Your task to perform on an android device: What is the news today? Image 0: 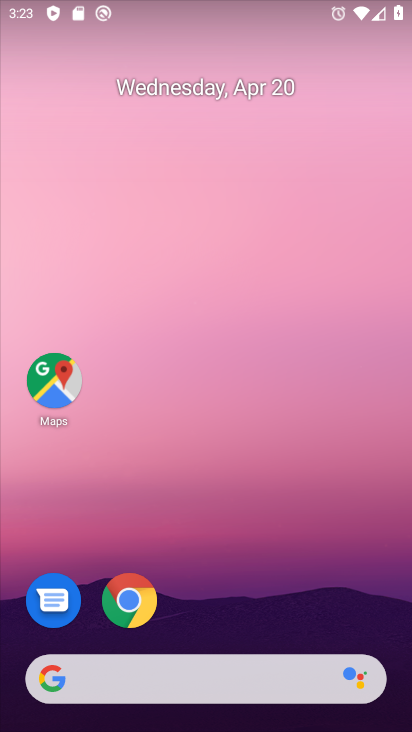
Step 0: drag from (289, 467) to (316, 208)
Your task to perform on an android device: What is the news today? Image 1: 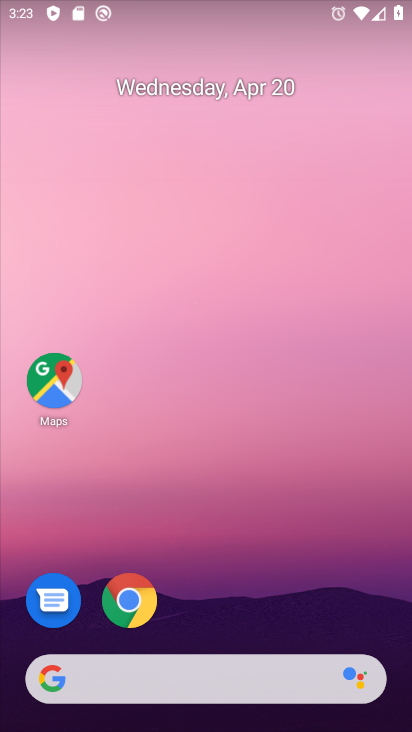
Step 1: drag from (188, 669) to (189, 213)
Your task to perform on an android device: What is the news today? Image 2: 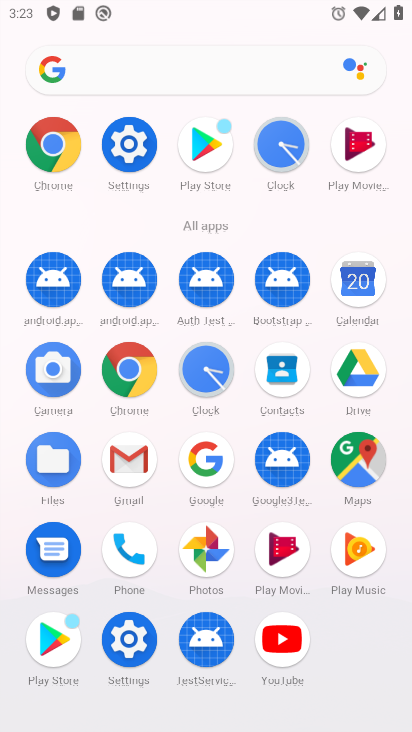
Step 2: click (45, 138)
Your task to perform on an android device: What is the news today? Image 3: 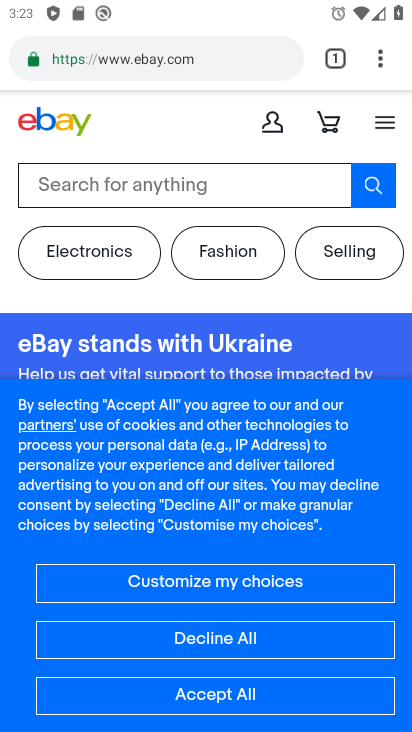
Step 3: click (376, 48)
Your task to perform on an android device: What is the news today? Image 4: 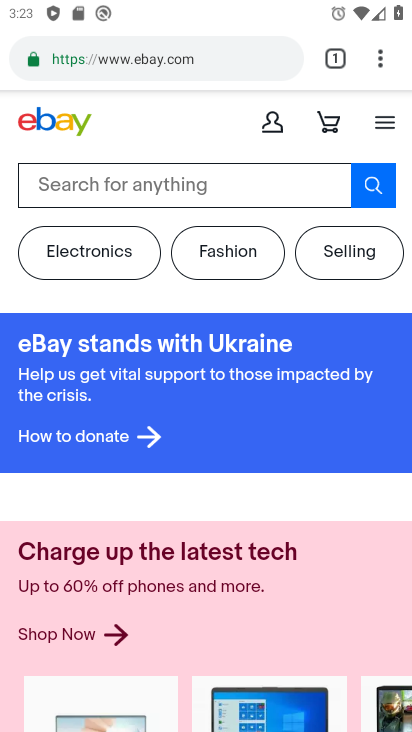
Step 4: click (373, 60)
Your task to perform on an android device: What is the news today? Image 5: 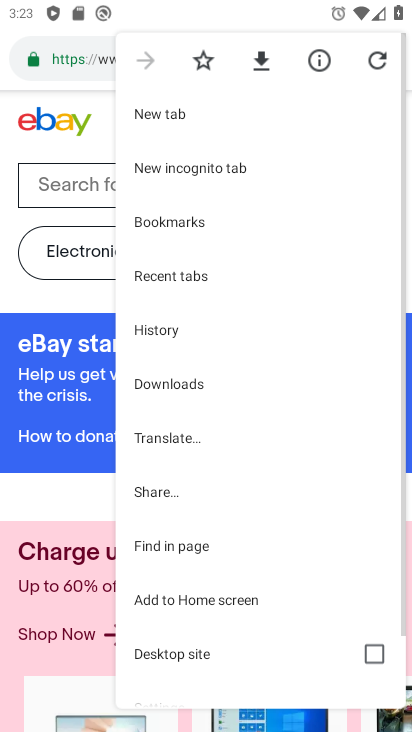
Step 5: click (220, 112)
Your task to perform on an android device: What is the news today? Image 6: 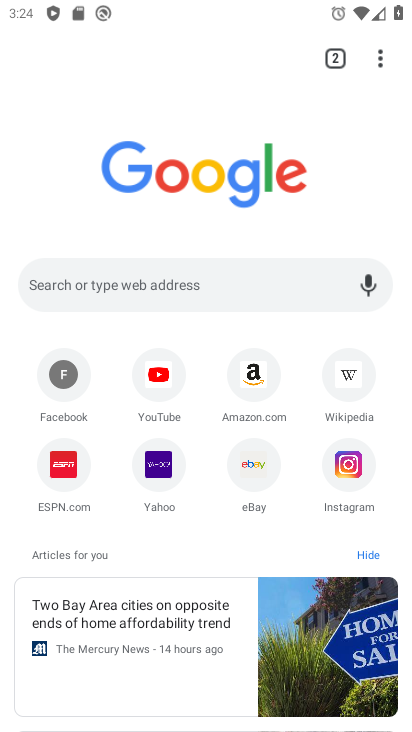
Step 6: click (196, 283)
Your task to perform on an android device: What is the news today? Image 7: 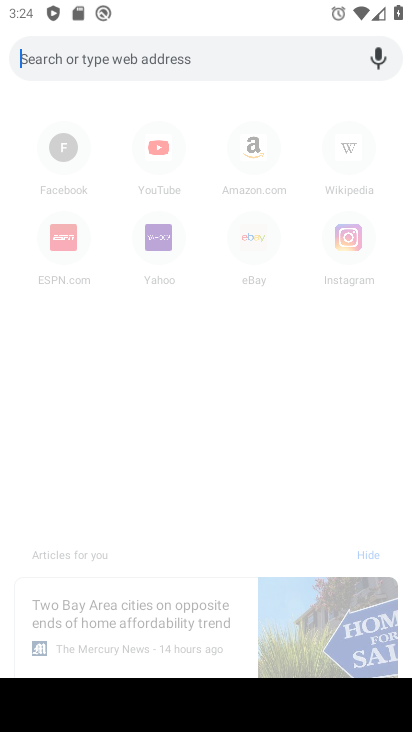
Step 7: type "What is the news today?"
Your task to perform on an android device: What is the news today? Image 8: 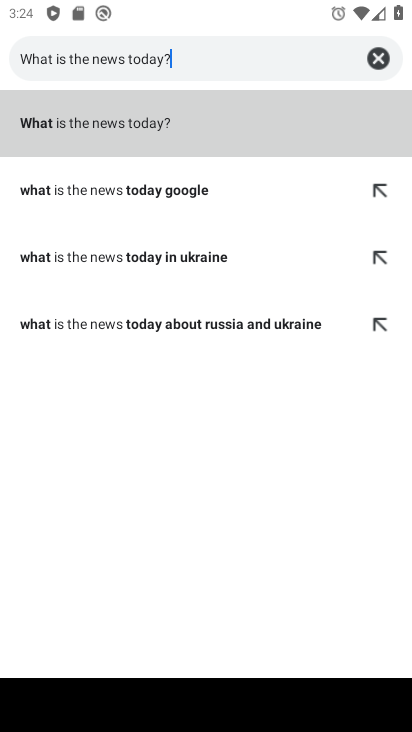
Step 8: click (130, 183)
Your task to perform on an android device: What is the news today? Image 9: 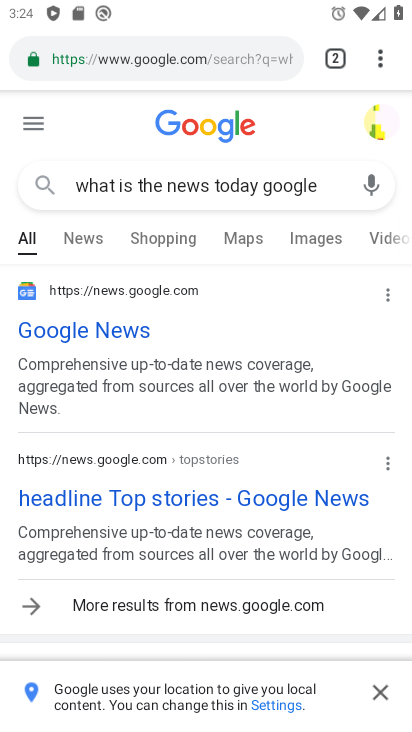
Step 9: click (322, 184)
Your task to perform on an android device: What is the news today? Image 10: 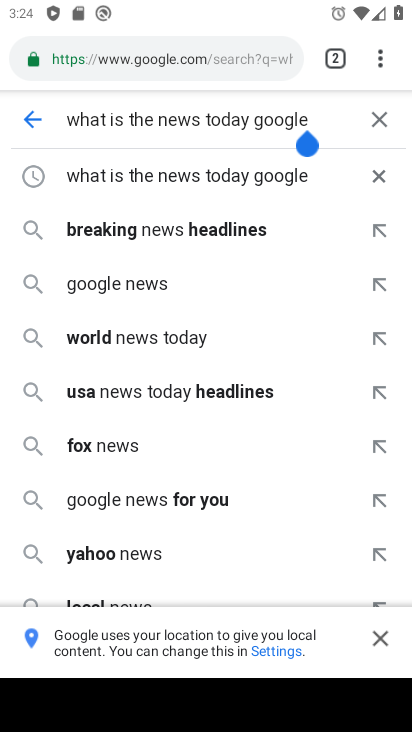
Step 10: click (378, 134)
Your task to perform on an android device: What is the news today? Image 11: 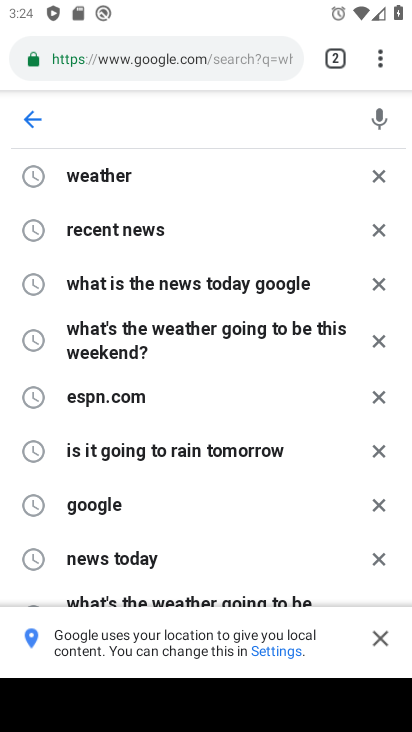
Step 11: click (287, 122)
Your task to perform on an android device: What is the news today? Image 12: 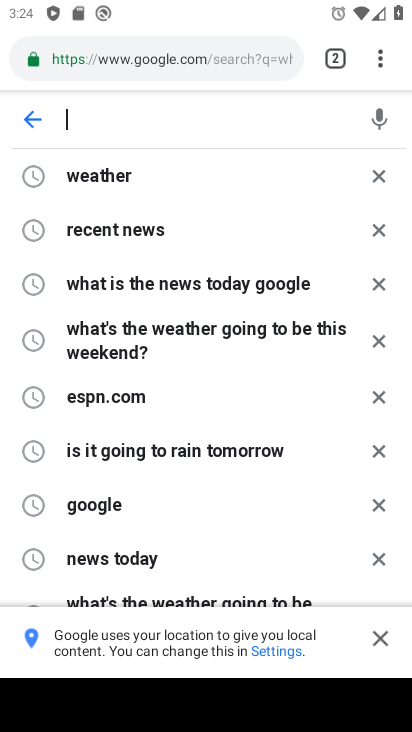
Step 12: click (109, 554)
Your task to perform on an android device: What is the news today? Image 13: 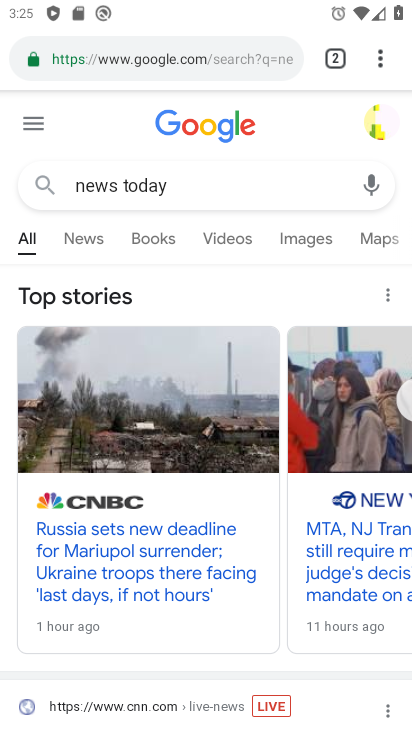
Step 13: task complete